Your task to perform on an android device: Open the stopwatch Image 0: 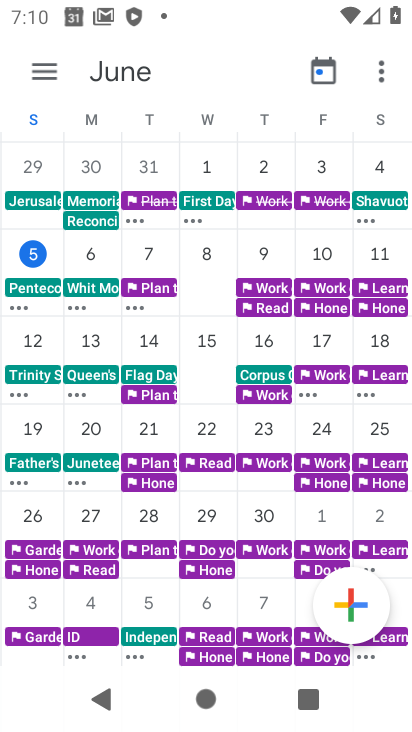
Step 0: press home button
Your task to perform on an android device: Open the stopwatch Image 1: 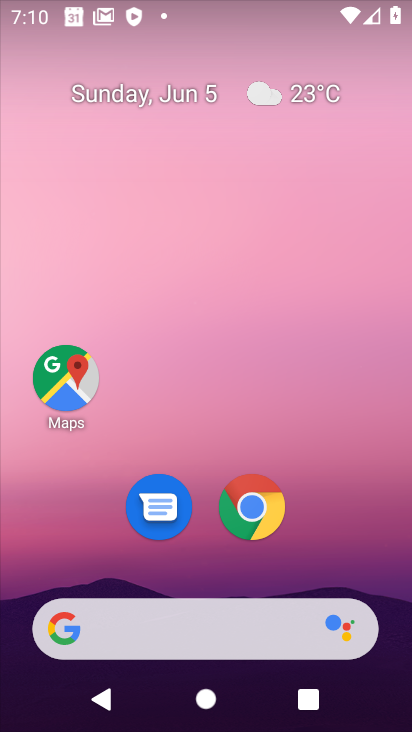
Step 1: drag from (214, 650) to (136, 10)
Your task to perform on an android device: Open the stopwatch Image 2: 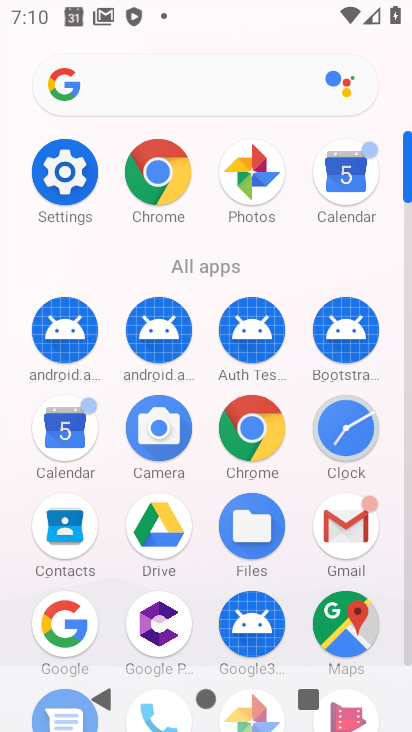
Step 2: click (349, 412)
Your task to perform on an android device: Open the stopwatch Image 3: 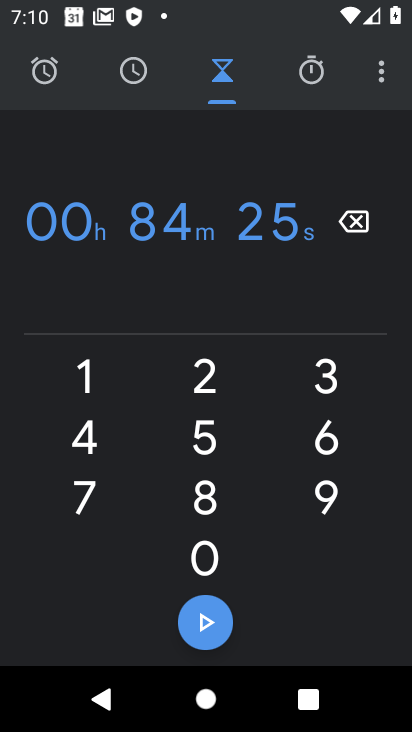
Step 3: click (275, 72)
Your task to perform on an android device: Open the stopwatch Image 4: 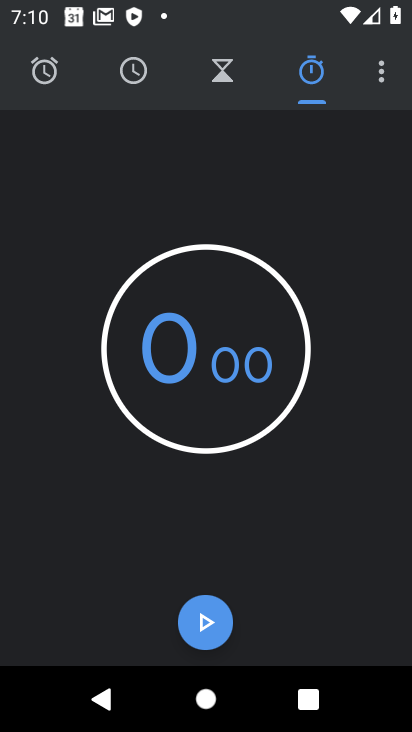
Step 4: click (207, 609)
Your task to perform on an android device: Open the stopwatch Image 5: 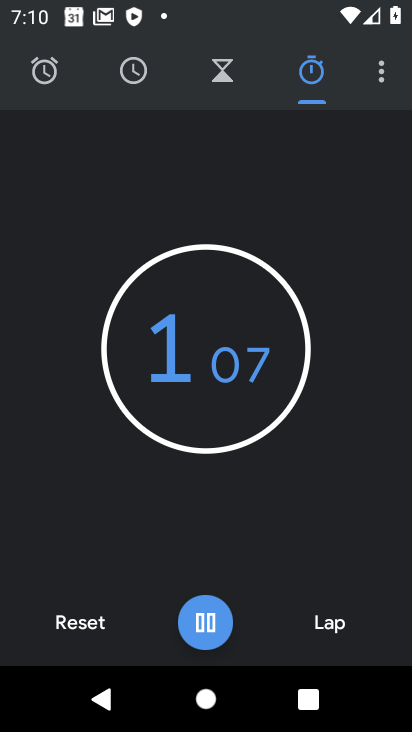
Step 5: click (197, 620)
Your task to perform on an android device: Open the stopwatch Image 6: 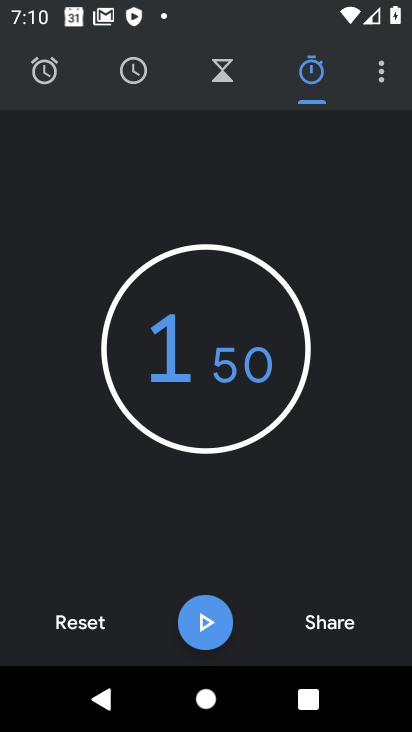
Step 6: task complete